Your task to perform on an android device: Open sound settings Image 0: 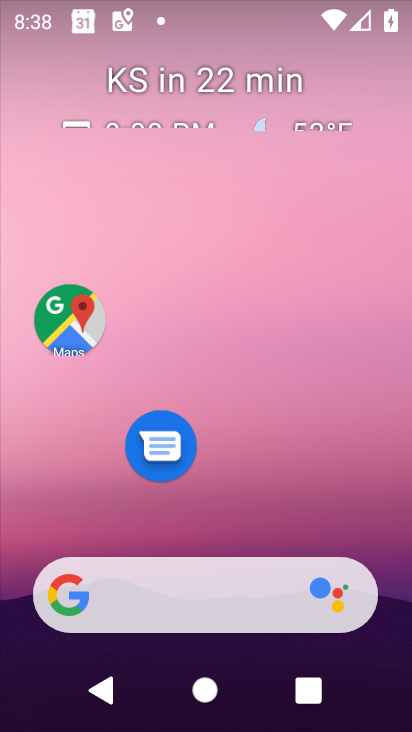
Step 0: drag from (205, 554) to (157, 84)
Your task to perform on an android device: Open sound settings Image 1: 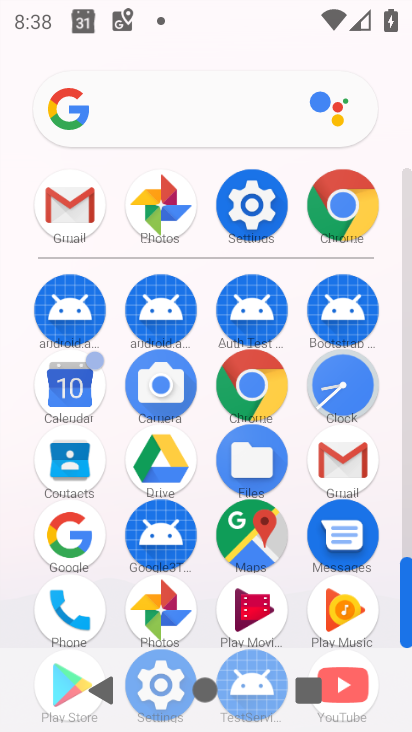
Step 1: click (245, 215)
Your task to perform on an android device: Open sound settings Image 2: 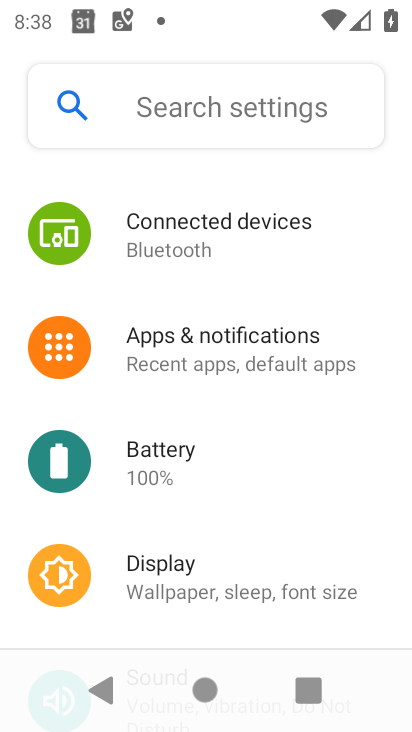
Step 2: drag from (249, 521) to (198, 184)
Your task to perform on an android device: Open sound settings Image 3: 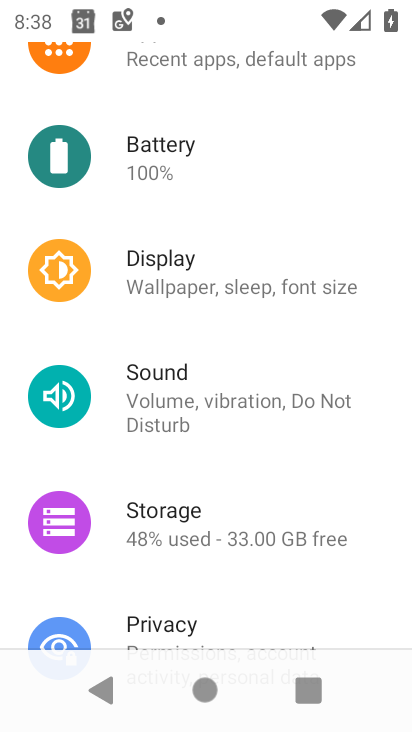
Step 3: click (138, 400)
Your task to perform on an android device: Open sound settings Image 4: 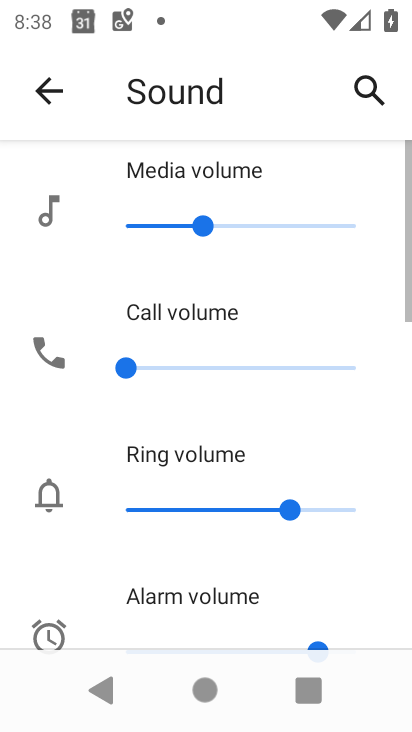
Step 4: task complete